Your task to perform on an android device: open chrome privacy settings Image 0: 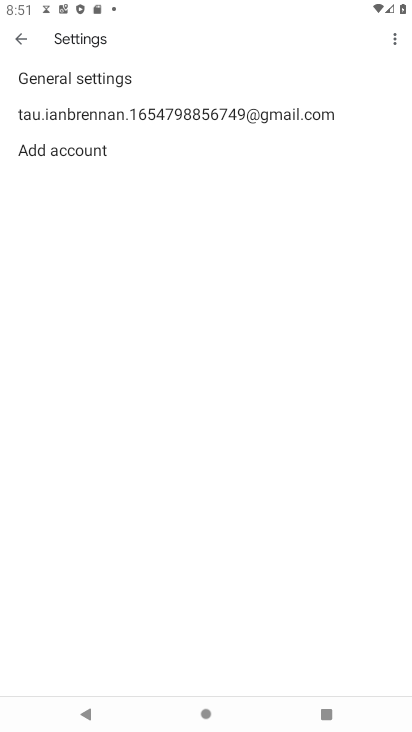
Step 0: press home button
Your task to perform on an android device: open chrome privacy settings Image 1: 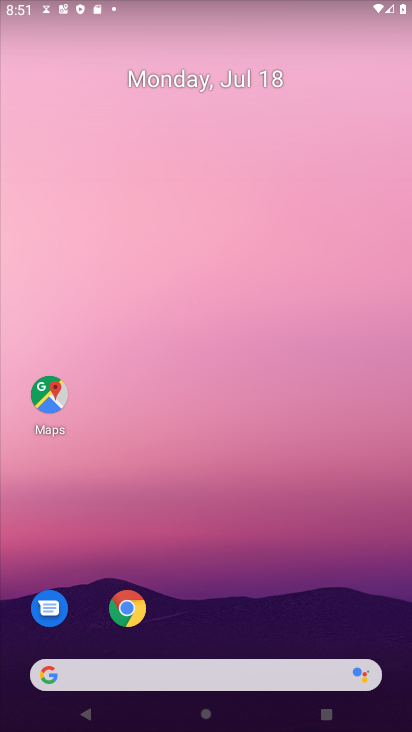
Step 1: drag from (234, 726) to (245, 124)
Your task to perform on an android device: open chrome privacy settings Image 2: 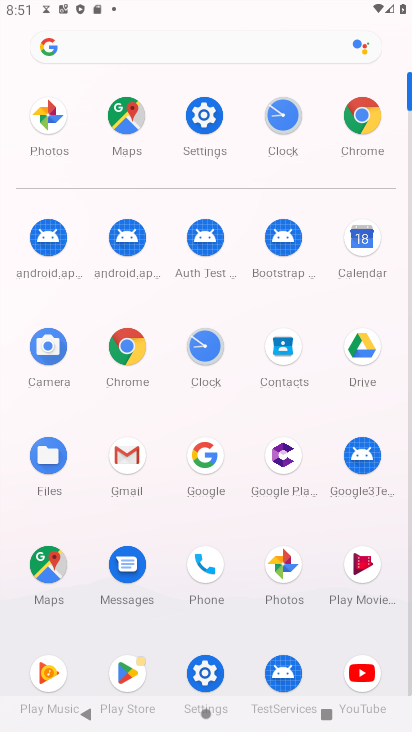
Step 2: click (362, 108)
Your task to perform on an android device: open chrome privacy settings Image 3: 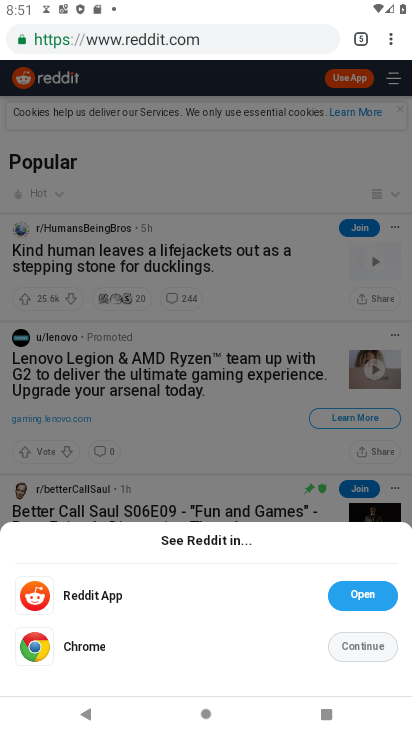
Step 3: click (390, 42)
Your task to perform on an android device: open chrome privacy settings Image 4: 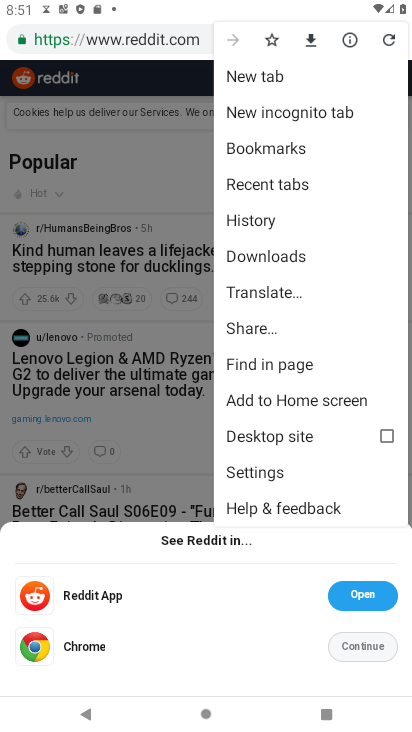
Step 4: click (248, 476)
Your task to perform on an android device: open chrome privacy settings Image 5: 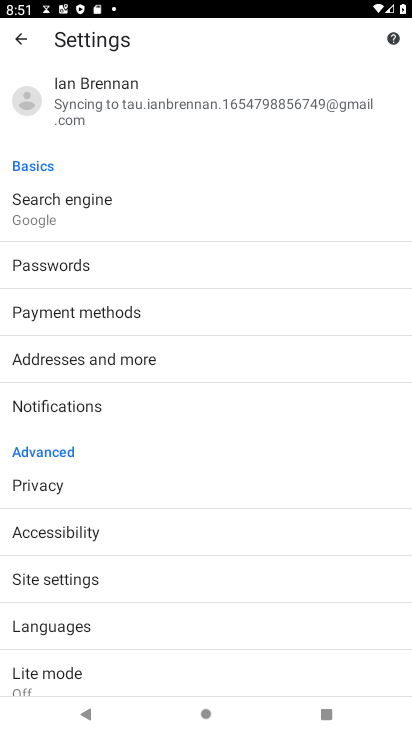
Step 5: click (47, 482)
Your task to perform on an android device: open chrome privacy settings Image 6: 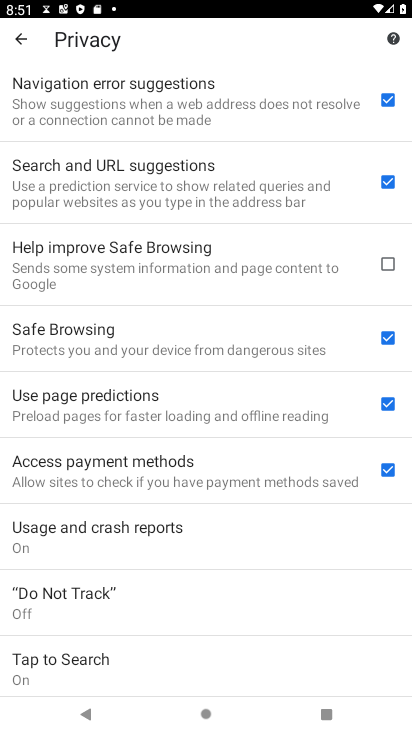
Step 6: task complete